Your task to perform on an android device: Open Chrome and go to settings Image 0: 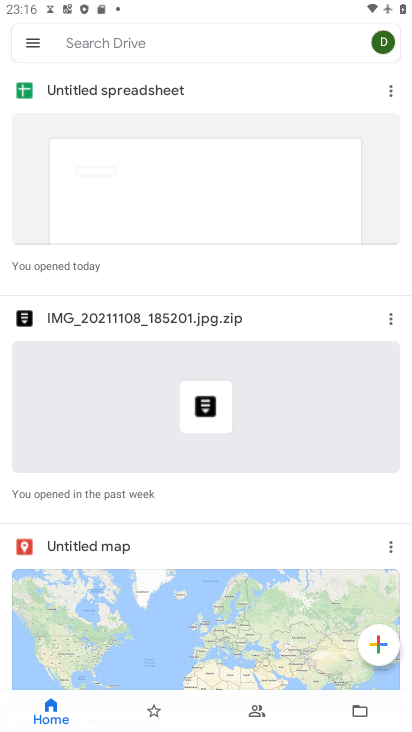
Step 0: press home button
Your task to perform on an android device: Open Chrome and go to settings Image 1: 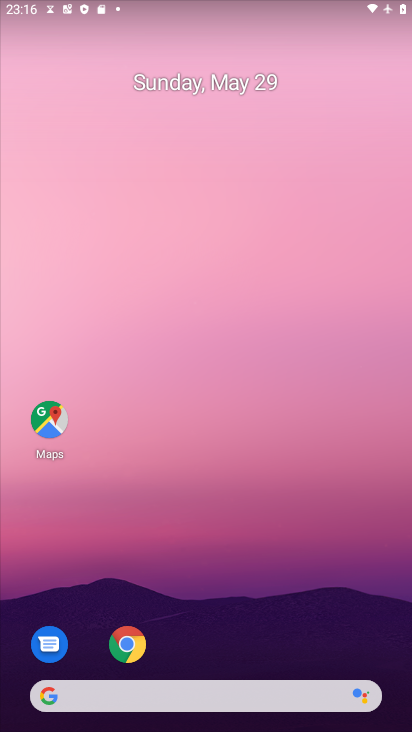
Step 1: drag from (241, 641) to (210, 300)
Your task to perform on an android device: Open Chrome and go to settings Image 2: 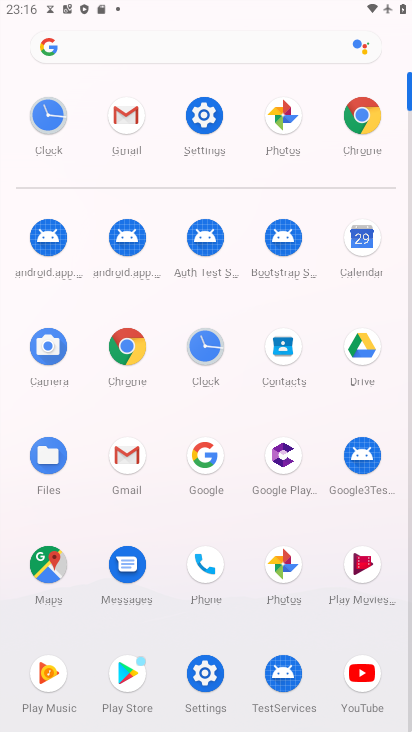
Step 2: click (126, 339)
Your task to perform on an android device: Open Chrome and go to settings Image 3: 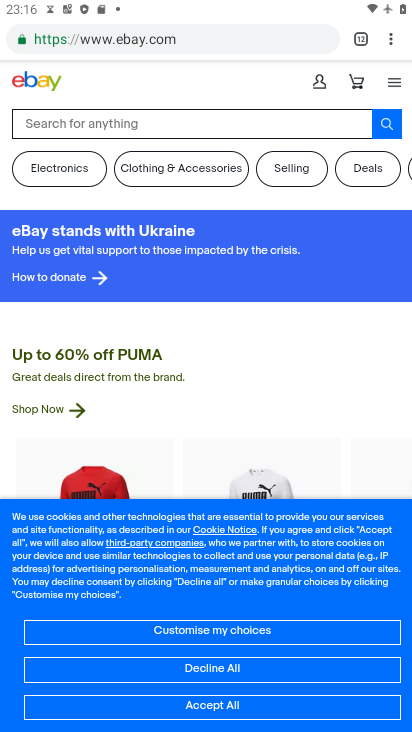
Step 3: click (390, 38)
Your task to perform on an android device: Open Chrome and go to settings Image 4: 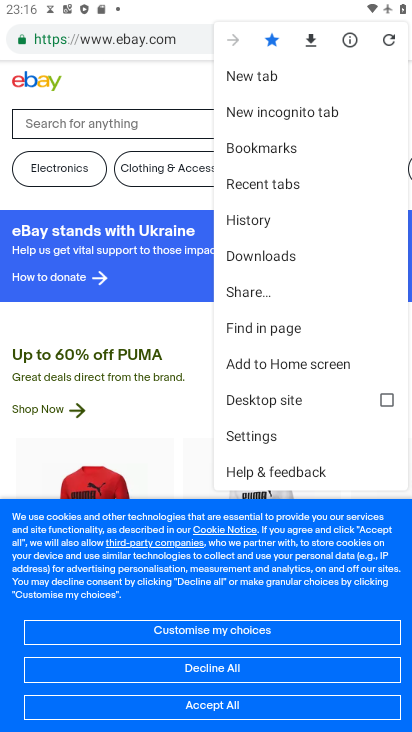
Step 4: click (276, 430)
Your task to perform on an android device: Open Chrome and go to settings Image 5: 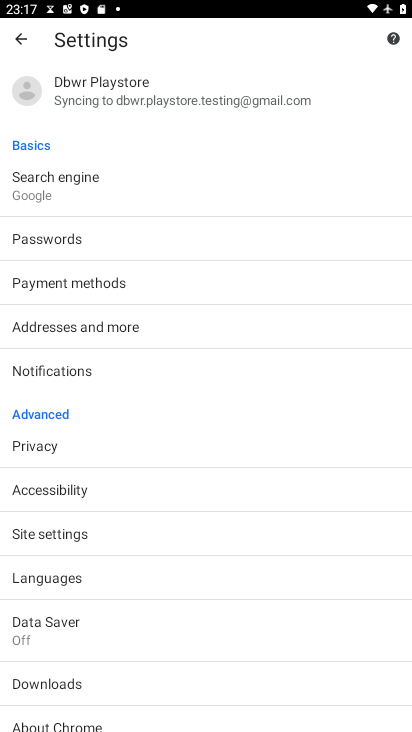
Step 5: task complete